Your task to perform on an android device: Add usb-c to the cart on walmart Image 0: 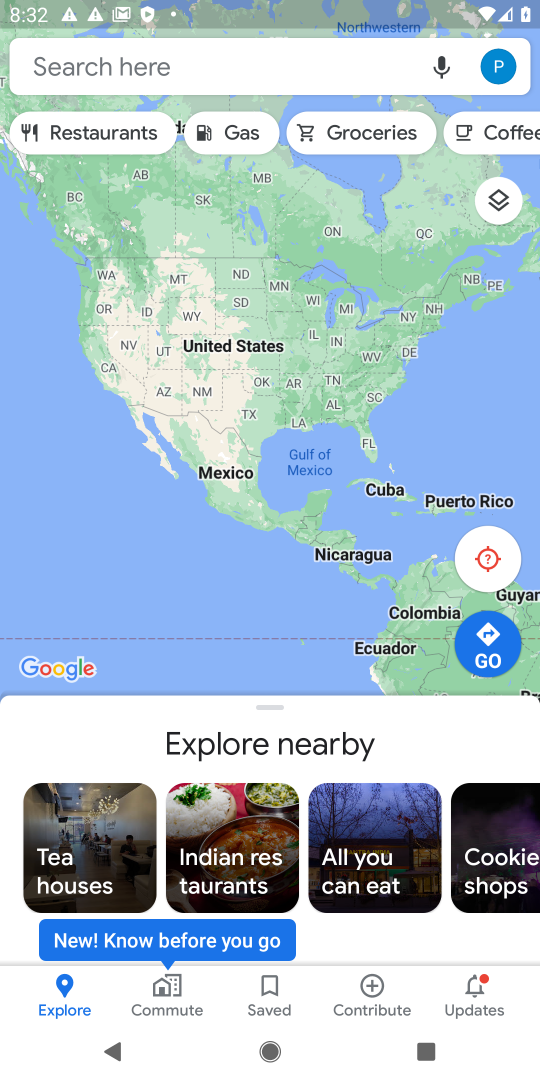
Step 0: press home button
Your task to perform on an android device: Add usb-c to the cart on walmart Image 1: 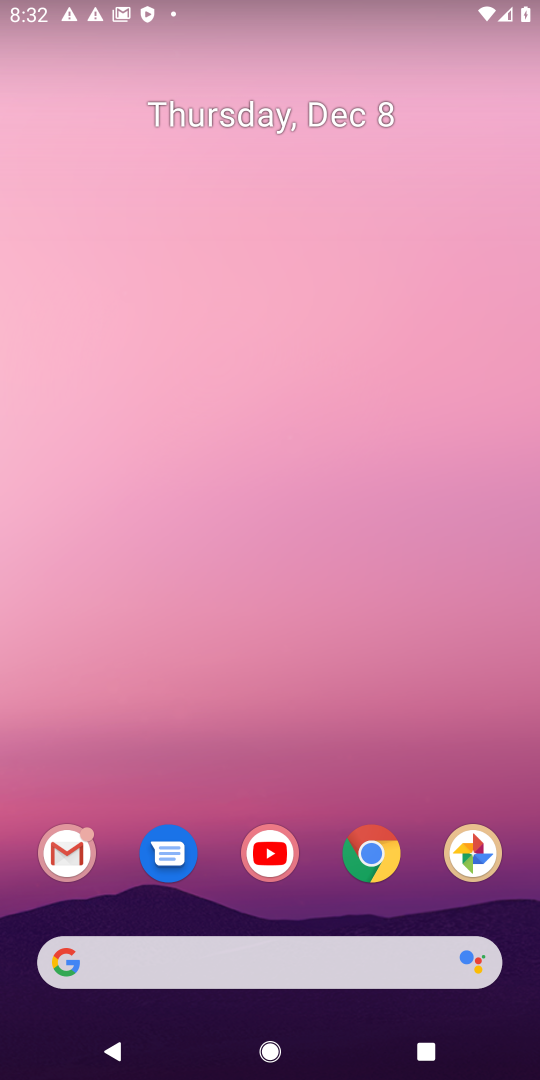
Step 1: click (326, 968)
Your task to perform on an android device: Add usb-c to the cart on walmart Image 2: 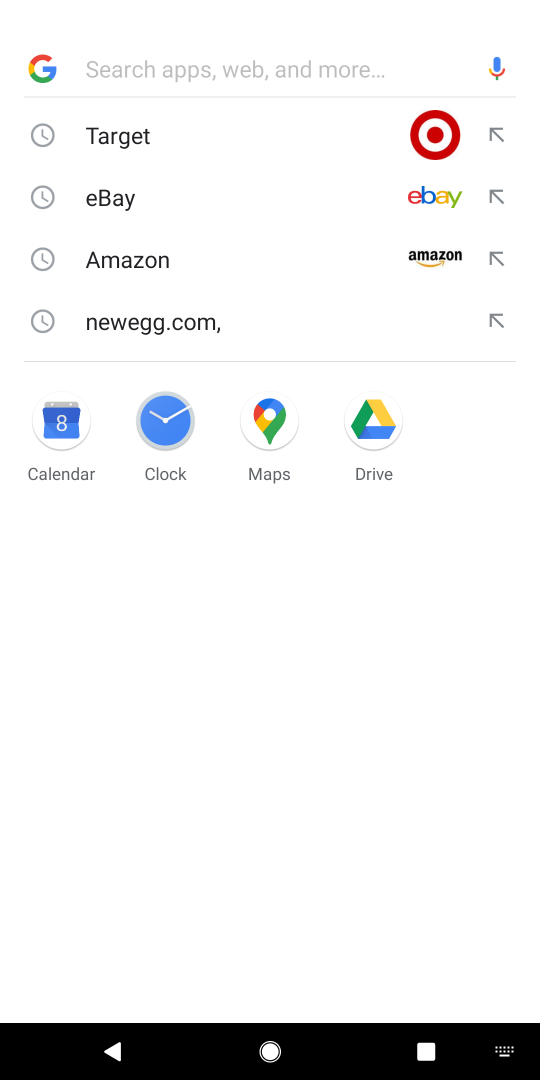
Step 2: type "walmart"
Your task to perform on an android device: Add usb-c to the cart on walmart Image 3: 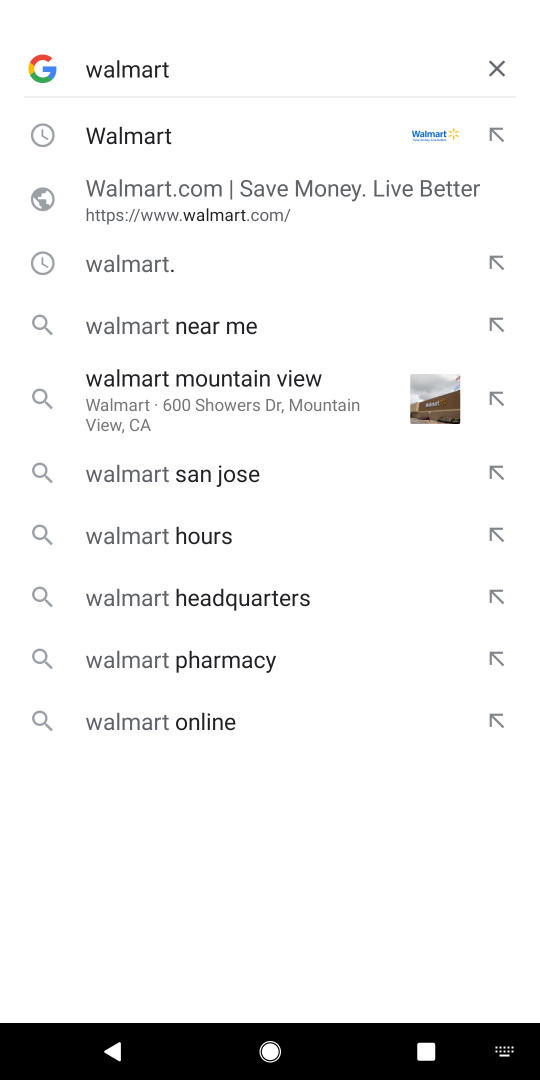
Step 3: click (134, 120)
Your task to perform on an android device: Add usb-c to the cart on walmart Image 4: 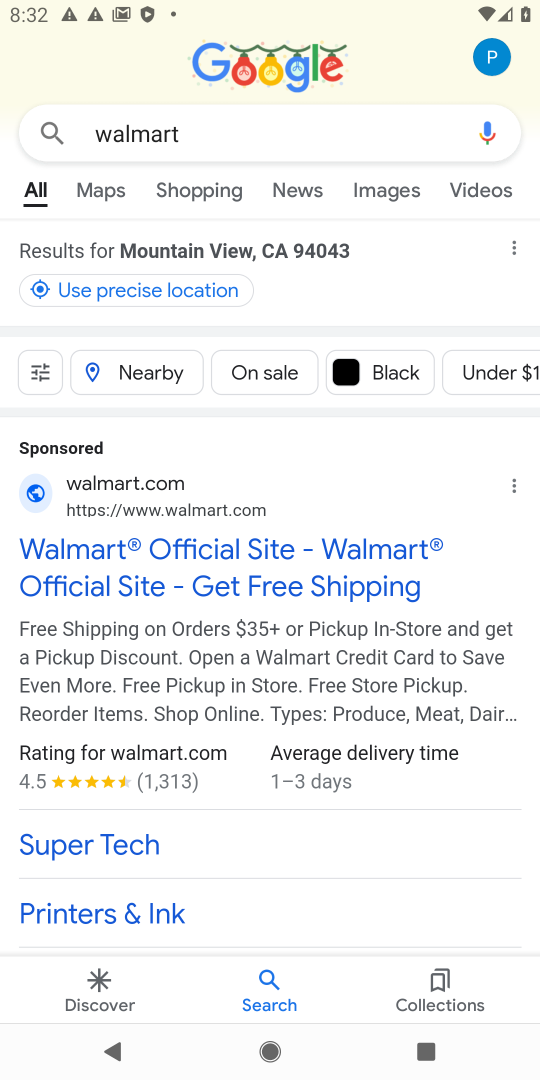
Step 4: click (167, 548)
Your task to perform on an android device: Add usb-c to the cart on walmart Image 5: 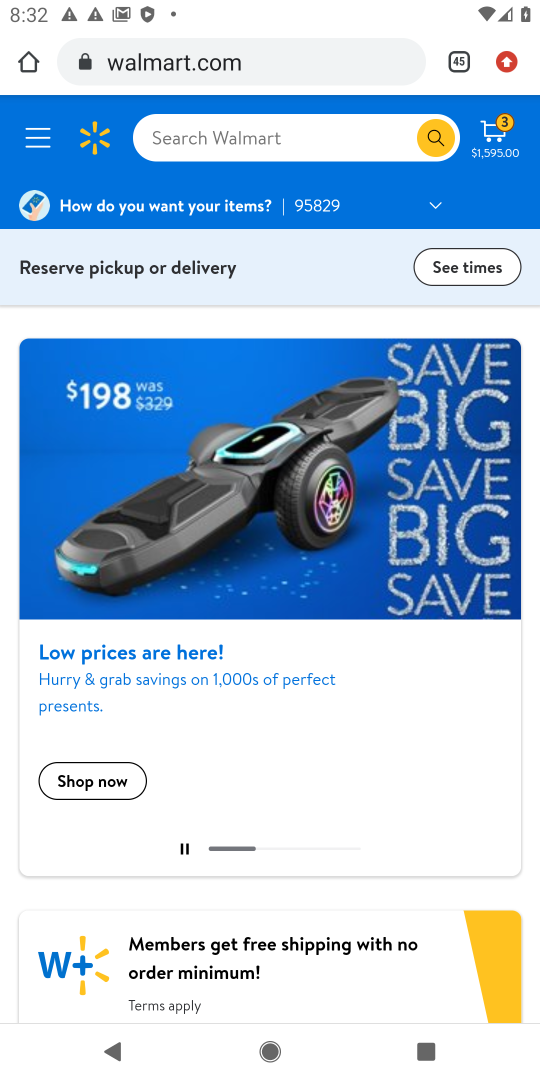
Step 5: click (226, 134)
Your task to perform on an android device: Add usb-c to the cart on walmart Image 6: 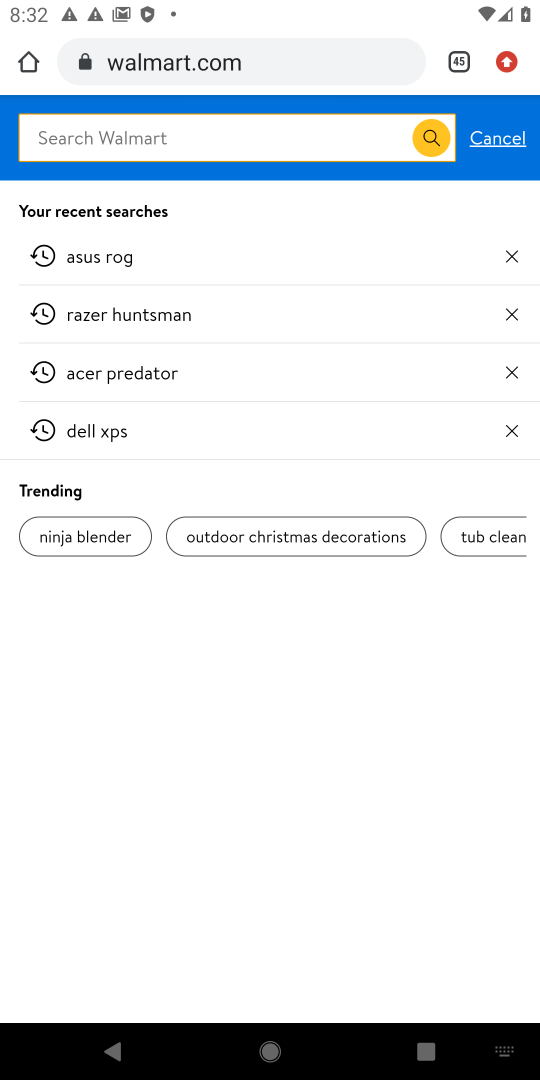
Step 6: type "usb-c"
Your task to perform on an android device: Add usb-c to the cart on walmart Image 7: 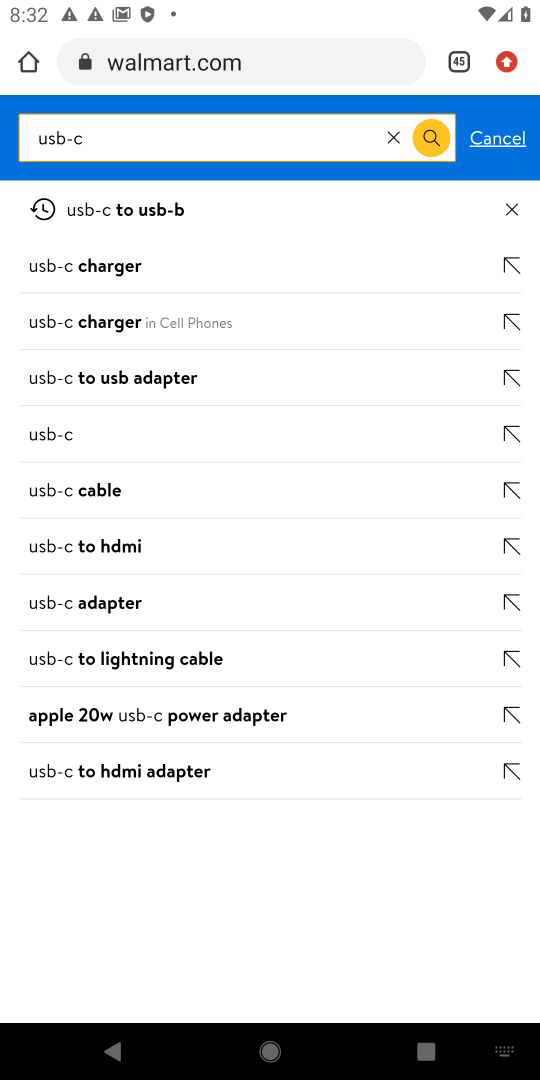
Step 7: click (73, 428)
Your task to perform on an android device: Add usb-c to the cart on walmart Image 8: 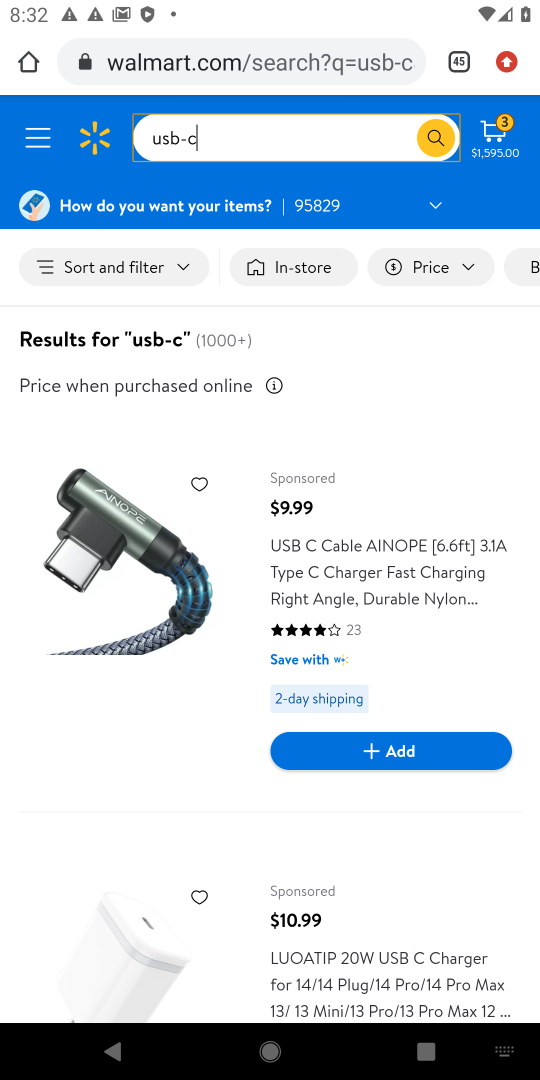
Step 8: click (388, 749)
Your task to perform on an android device: Add usb-c to the cart on walmart Image 9: 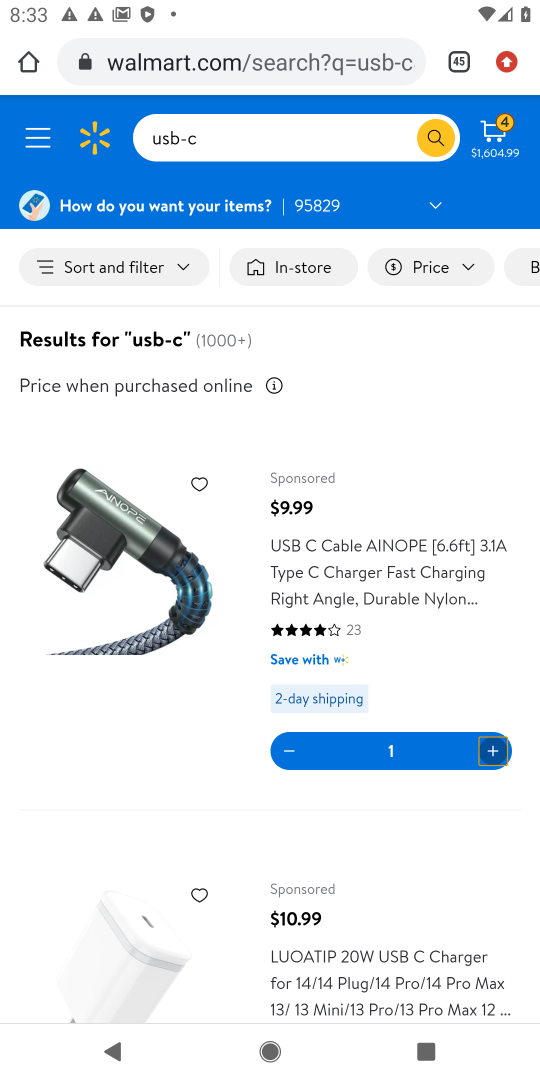
Step 9: task complete